Your task to perform on an android device: toggle pop-ups in chrome Image 0: 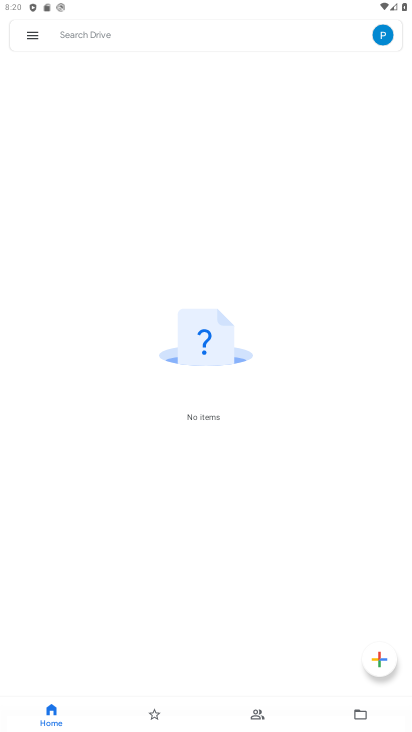
Step 0: press home button
Your task to perform on an android device: toggle pop-ups in chrome Image 1: 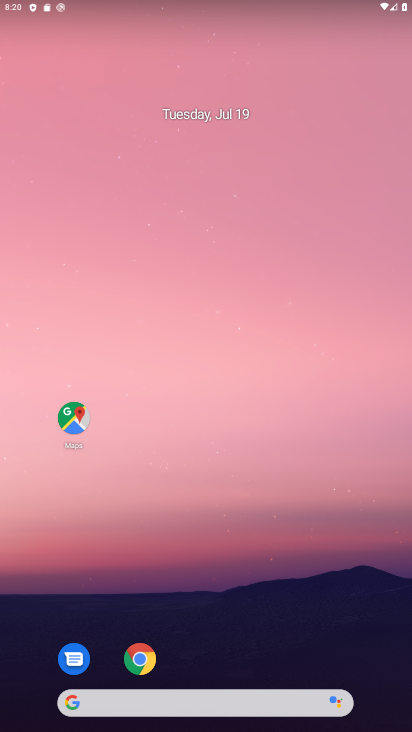
Step 1: click (136, 653)
Your task to perform on an android device: toggle pop-ups in chrome Image 2: 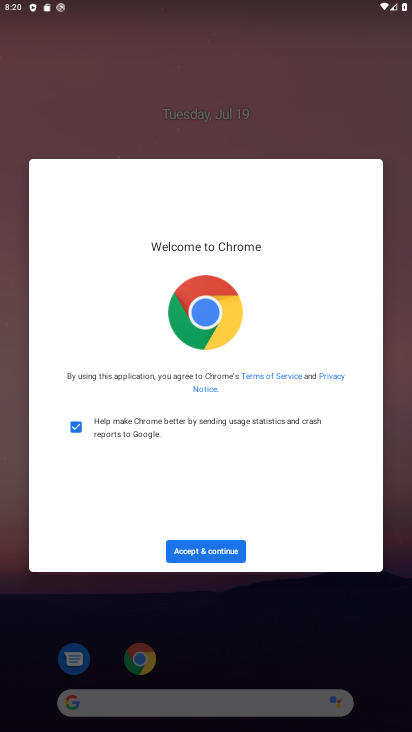
Step 2: click (228, 545)
Your task to perform on an android device: toggle pop-ups in chrome Image 3: 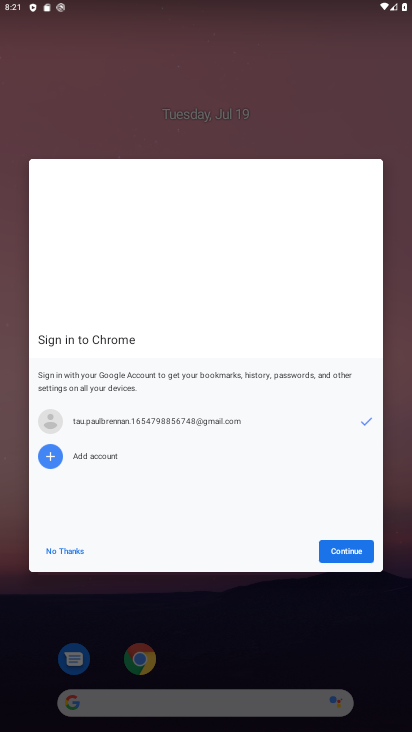
Step 3: click (337, 553)
Your task to perform on an android device: toggle pop-ups in chrome Image 4: 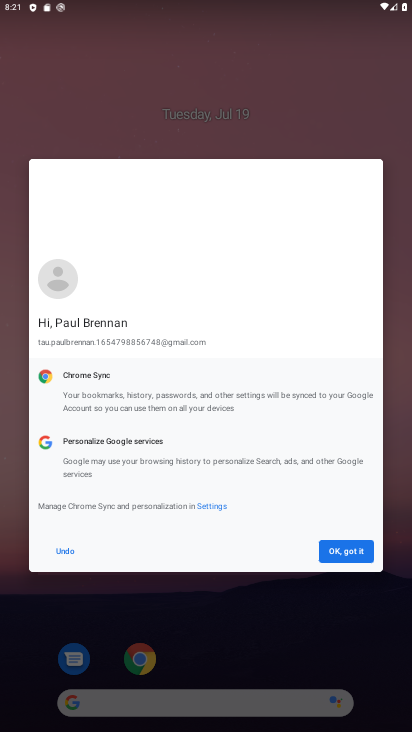
Step 4: click (337, 551)
Your task to perform on an android device: toggle pop-ups in chrome Image 5: 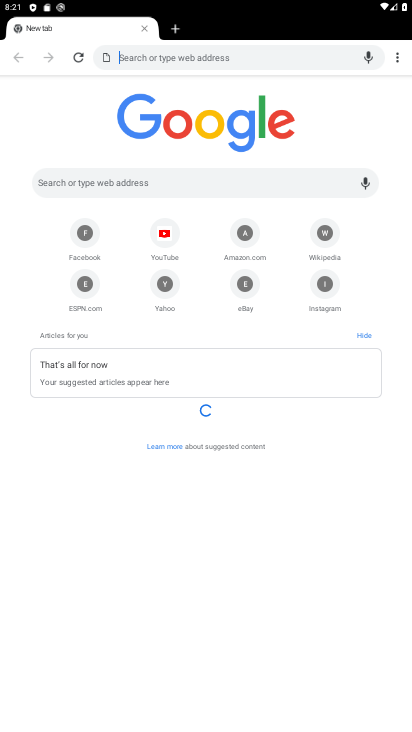
Step 5: drag from (399, 66) to (311, 255)
Your task to perform on an android device: toggle pop-ups in chrome Image 6: 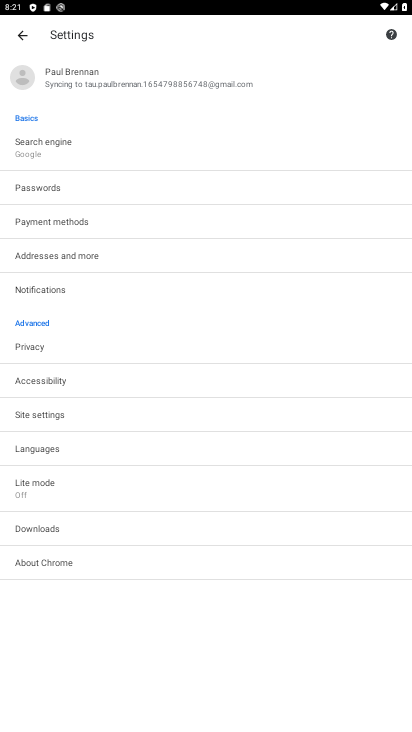
Step 6: click (95, 419)
Your task to perform on an android device: toggle pop-ups in chrome Image 7: 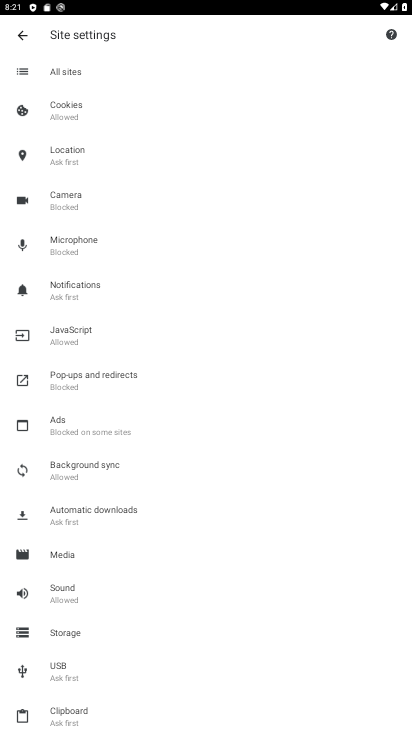
Step 7: click (127, 381)
Your task to perform on an android device: toggle pop-ups in chrome Image 8: 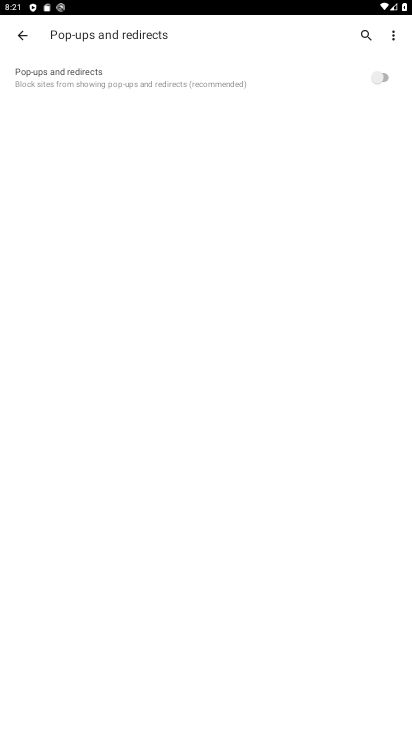
Step 8: click (395, 64)
Your task to perform on an android device: toggle pop-ups in chrome Image 9: 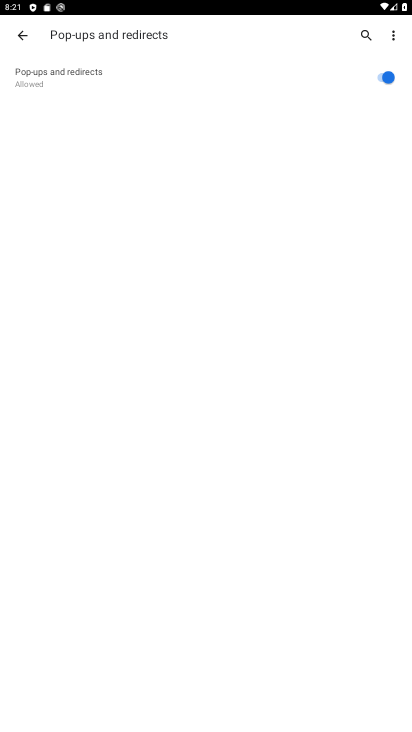
Step 9: task complete